Your task to perform on an android device: Open the map Image 0: 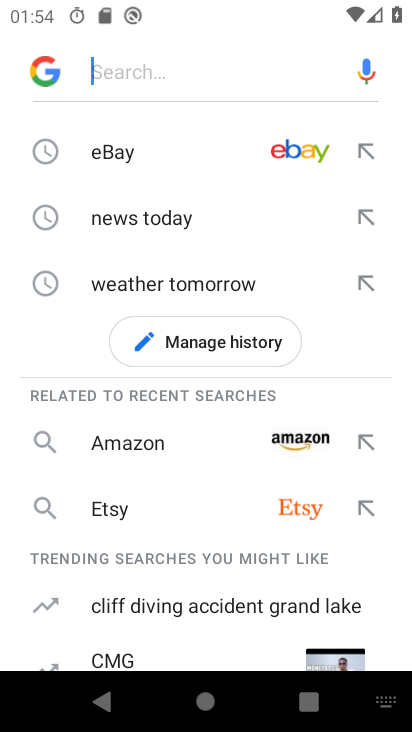
Step 0: press home button
Your task to perform on an android device: Open the map Image 1: 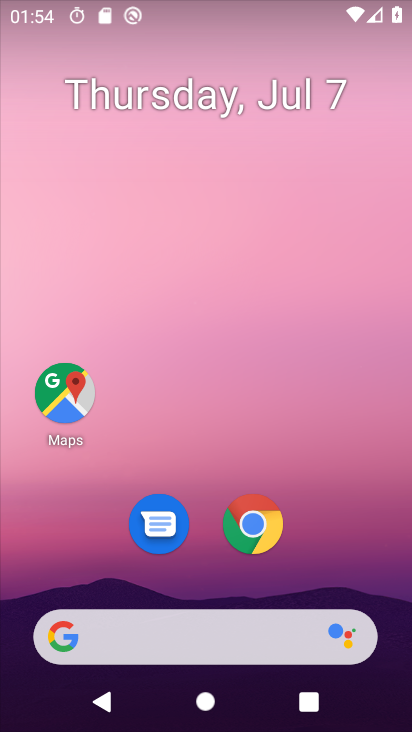
Step 1: click (281, 416)
Your task to perform on an android device: Open the map Image 2: 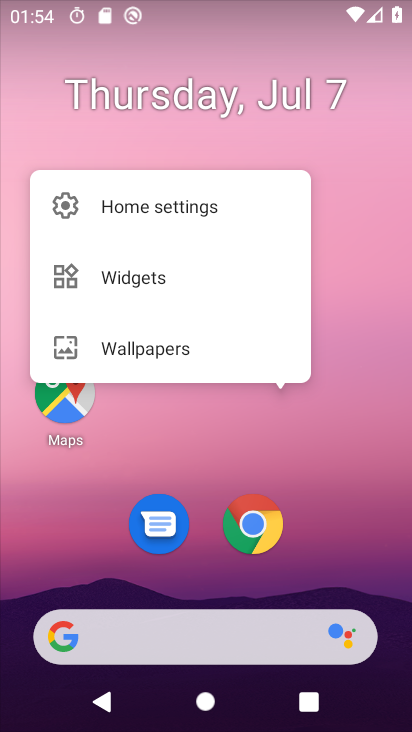
Step 2: click (66, 408)
Your task to perform on an android device: Open the map Image 3: 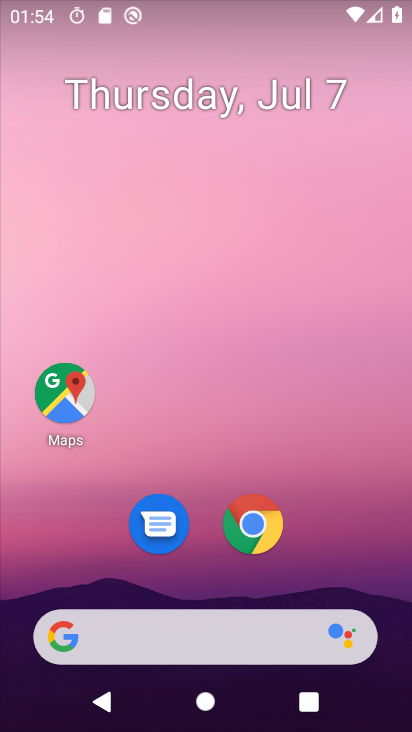
Step 3: click (66, 408)
Your task to perform on an android device: Open the map Image 4: 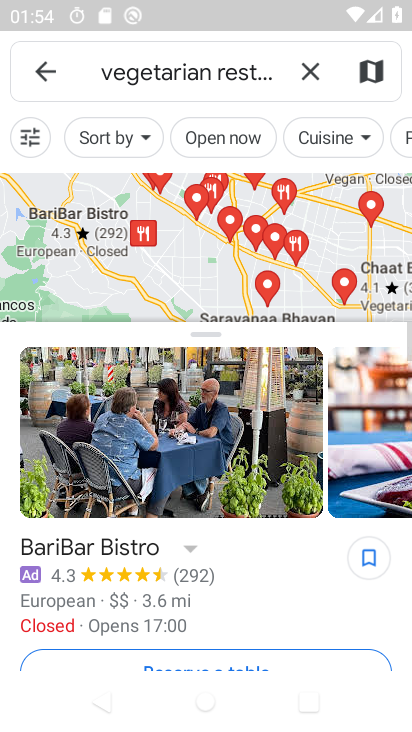
Step 4: click (307, 70)
Your task to perform on an android device: Open the map Image 5: 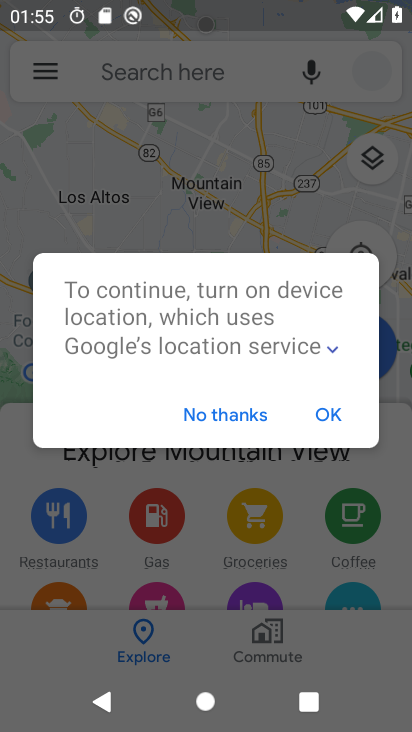
Step 5: click (327, 409)
Your task to perform on an android device: Open the map Image 6: 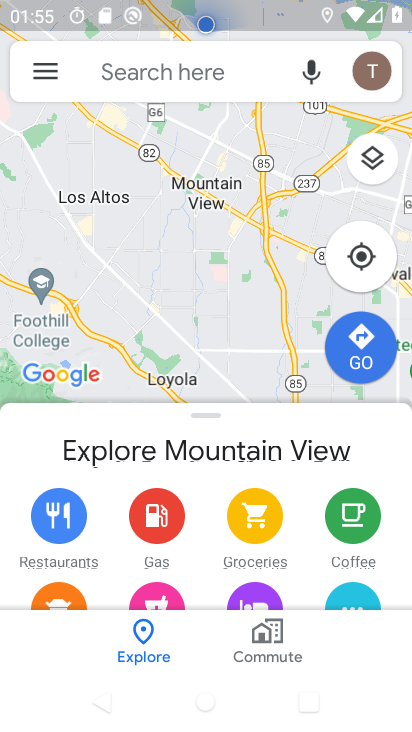
Step 6: task complete